Your task to perform on an android device: Go to network settings Image 0: 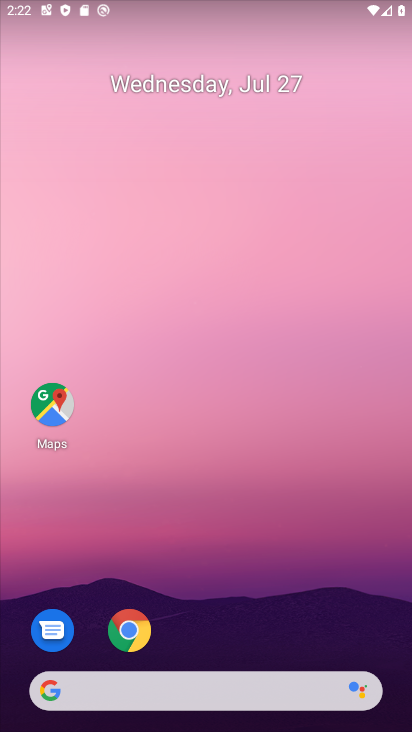
Step 0: drag from (399, 714) to (318, 52)
Your task to perform on an android device: Go to network settings Image 1: 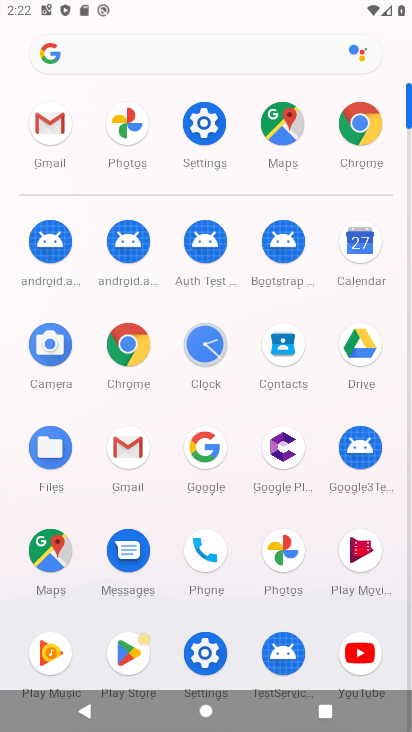
Step 1: click (195, 123)
Your task to perform on an android device: Go to network settings Image 2: 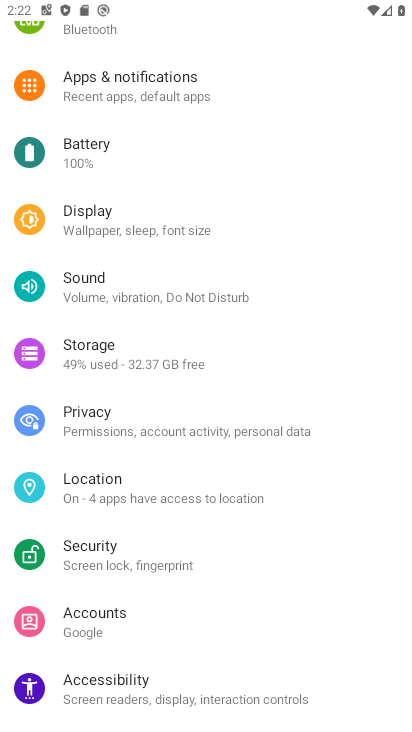
Step 2: drag from (238, 97) to (321, 473)
Your task to perform on an android device: Go to network settings Image 3: 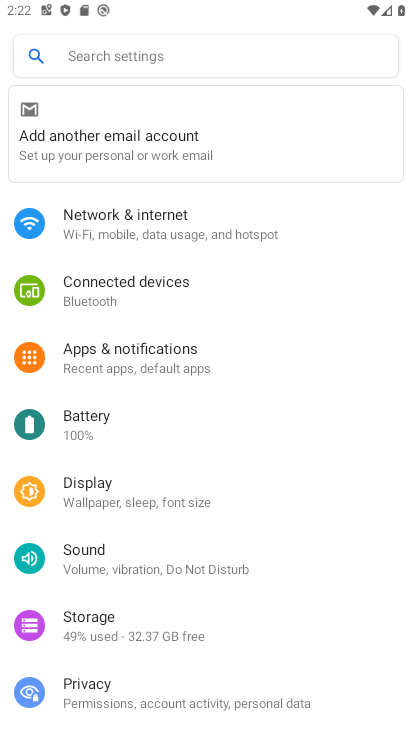
Step 3: click (122, 222)
Your task to perform on an android device: Go to network settings Image 4: 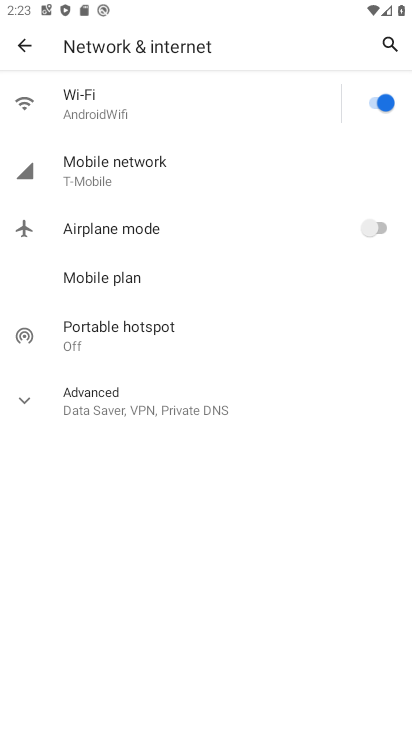
Step 4: click (88, 157)
Your task to perform on an android device: Go to network settings Image 5: 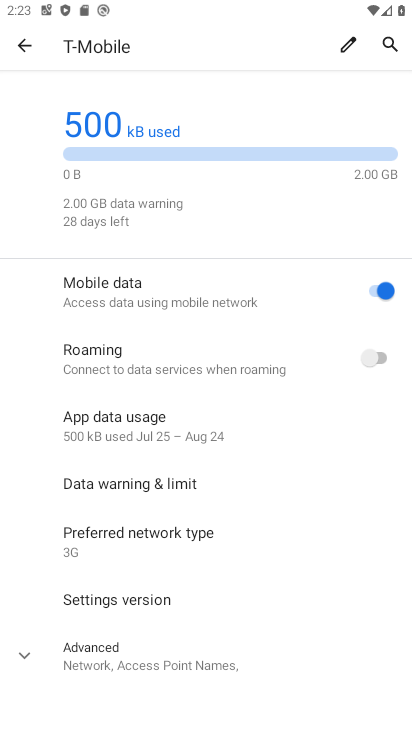
Step 5: click (21, 655)
Your task to perform on an android device: Go to network settings Image 6: 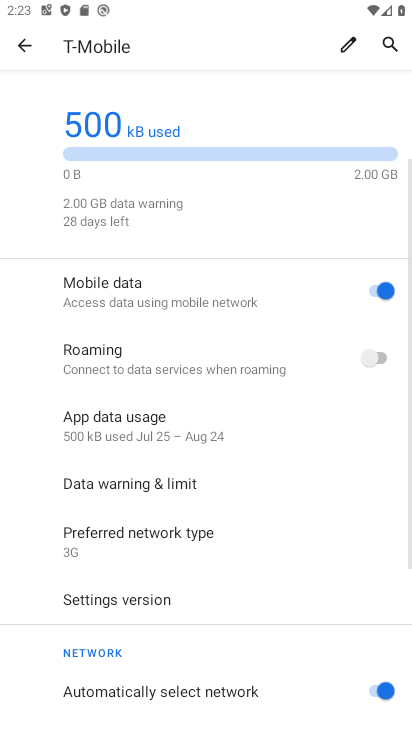
Step 6: task complete